Your task to perform on an android device: Go to network settings Image 0: 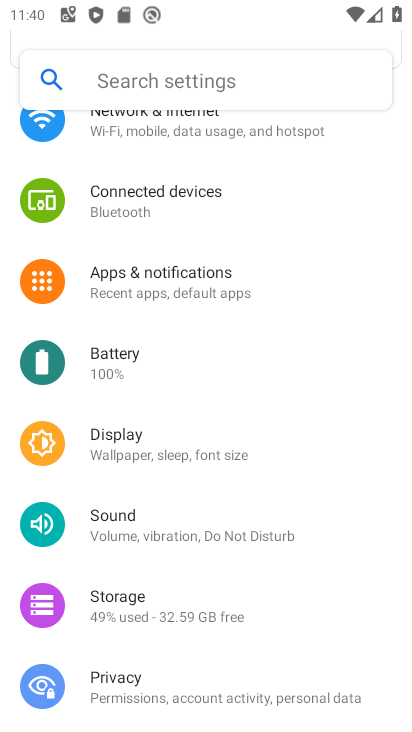
Step 0: drag from (305, 166) to (312, 430)
Your task to perform on an android device: Go to network settings Image 1: 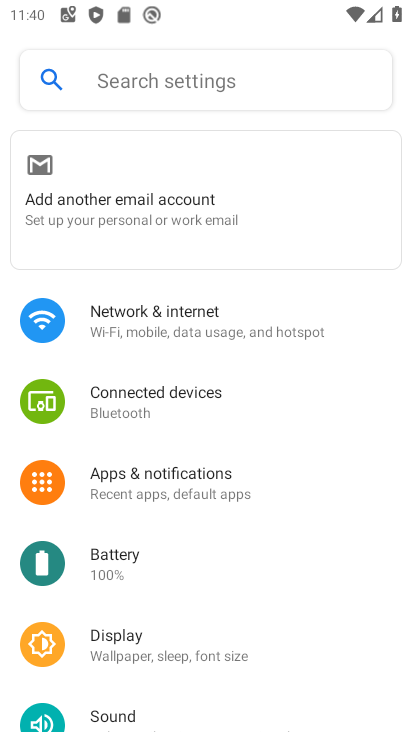
Step 1: click (270, 330)
Your task to perform on an android device: Go to network settings Image 2: 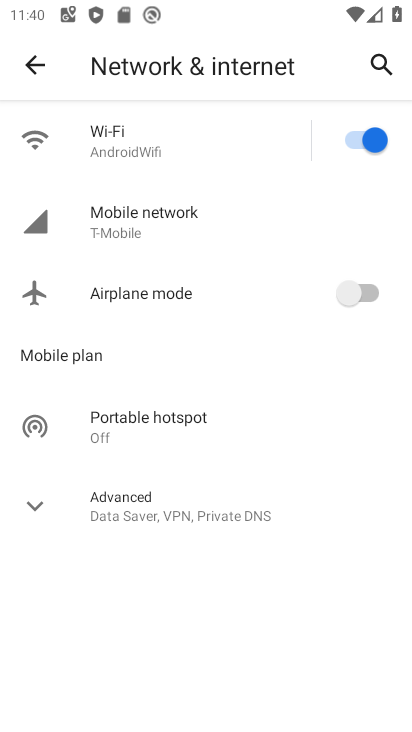
Step 2: task complete